Your task to perform on an android device: turn on the 12-hour format for clock Image 0: 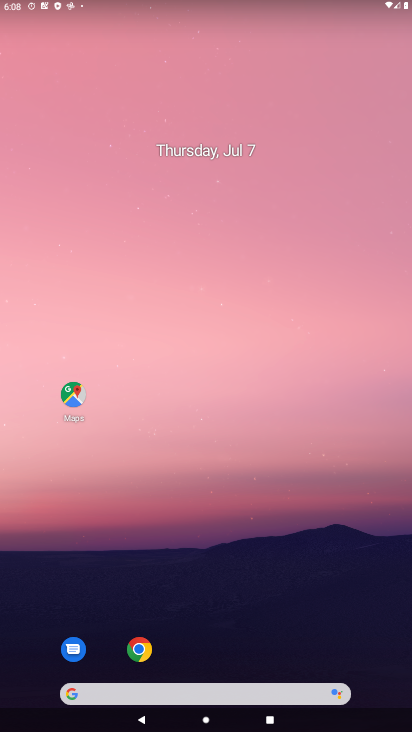
Step 0: drag from (362, 666) to (170, 15)
Your task to perform on an android device: turn on the 12-hour format for clock Image 1: 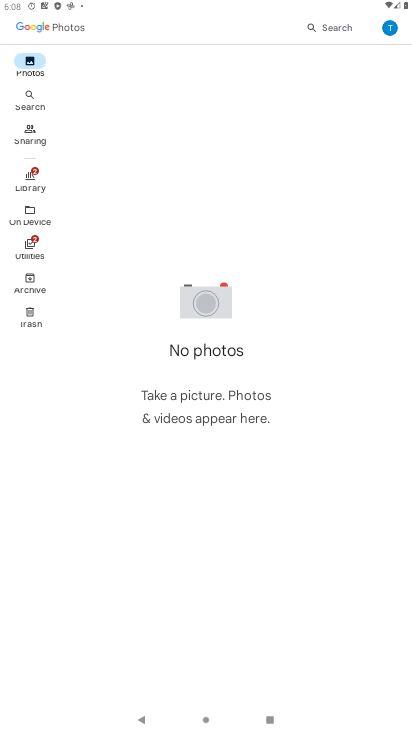
Step 1: press home button
Your task to perform on an android device: turn on the 12-hour format for clock Image 2: 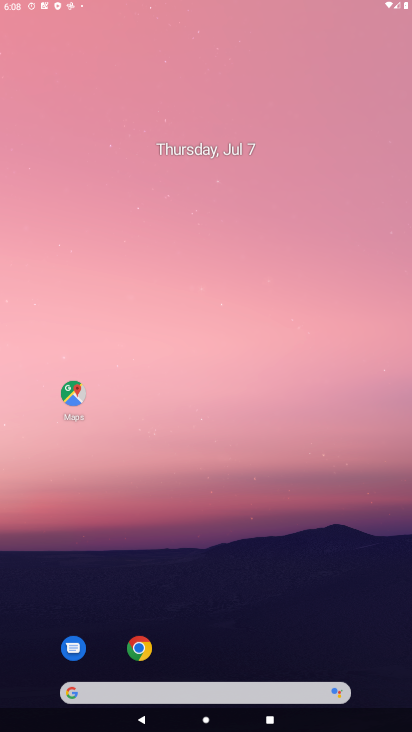
Step 2: drag from (377, 706) to (213, 0)
Your task to perform on an android device: turn on the 12-hour format for clock Image 3: 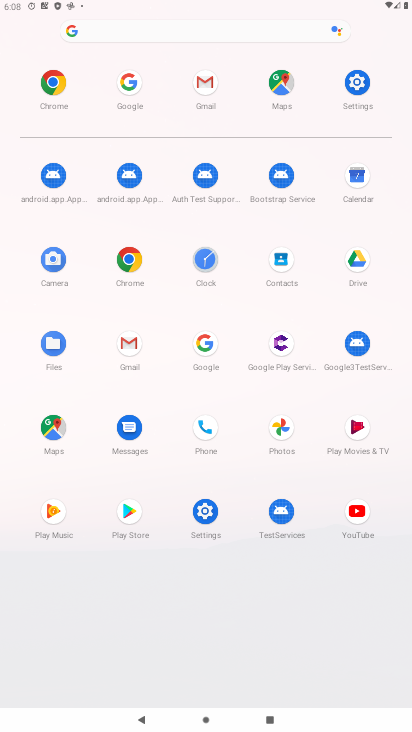
Step 3: click (206, 261)
Your task to perform on an android device: turn on the 12-hour format for clock Image 4: 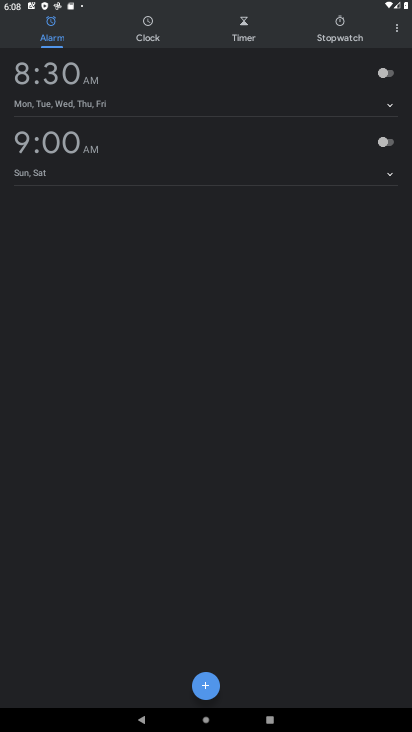
Step 4: click (397, 26)
Your task to perform on an android device: turn on the 12-hour format for clock Image 5: 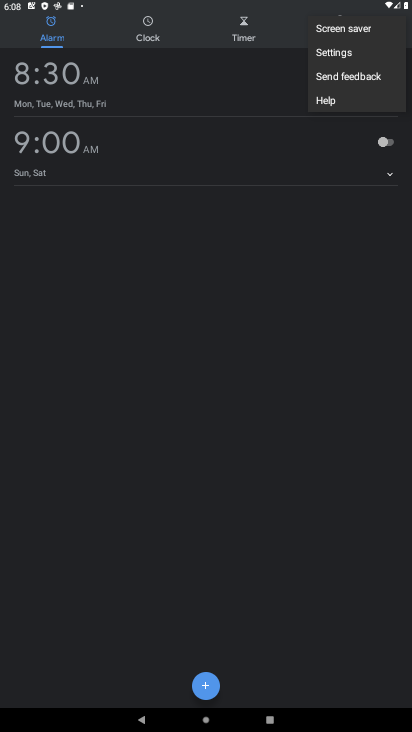
Step 5: click (347, 49)
Your task to perform on an android device: turn on the 12-hour format for clock Image 6: 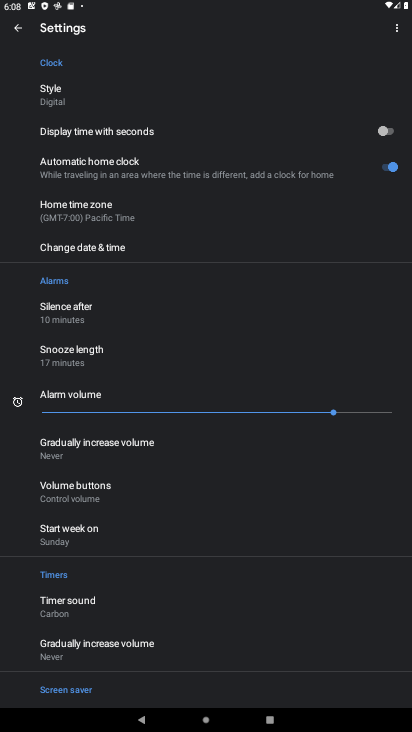
Step 6: click (105, 253)
Your task to perform on an android device: turn on the 12-hour format for clock Image 7: 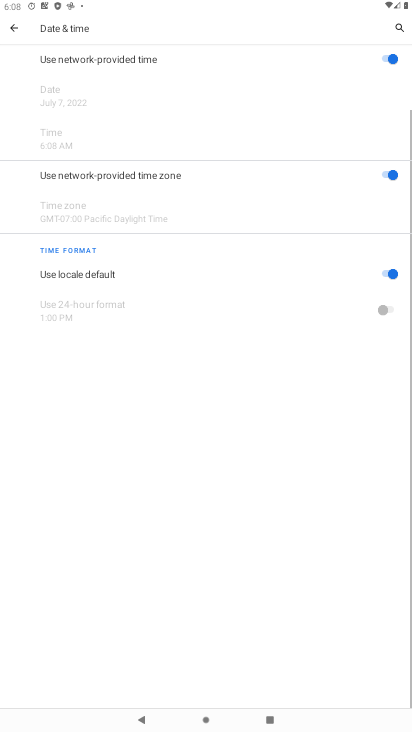
Step 7: task complete